Your task to perform on an android device: set an alarm Image 0: 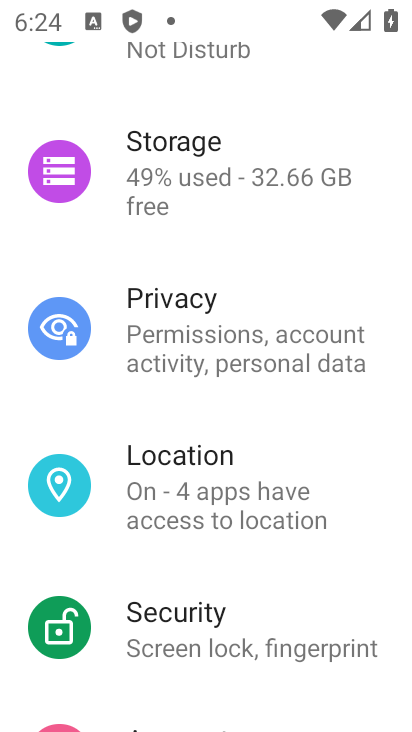
Step 0: press home button
Your task to perform on an android device: set an alarm Image 1: 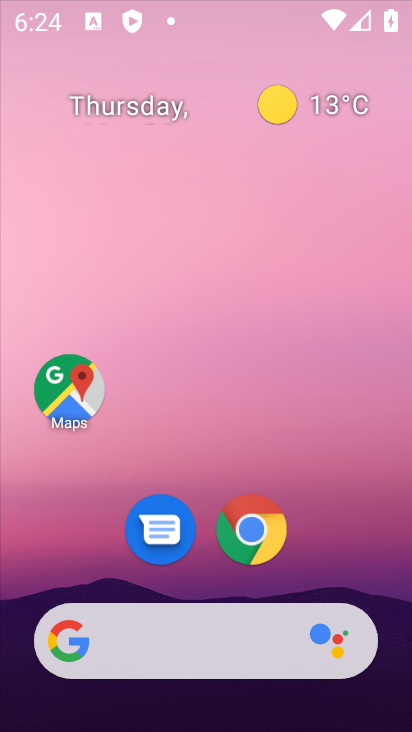
Step 1: drag from (307, 523) to (309, 14)
Your task to perform on an android device: set an alarm Image 2: 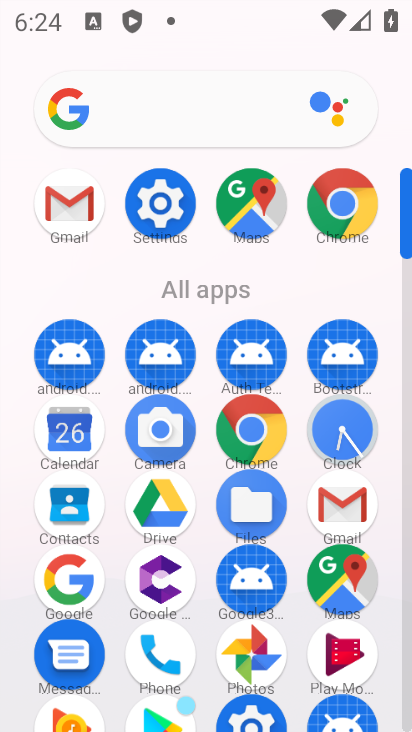
Step 2: click (337, 441)
Your task to perform on an android device: set an alarm Image 3: 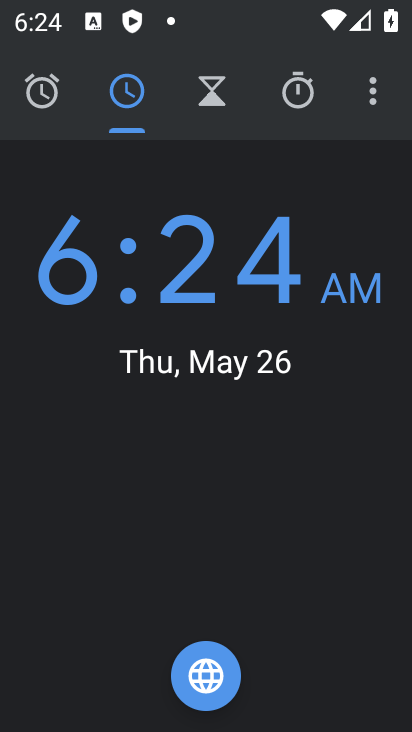
Step 3: click (52, 101)
Your task to perform on an android device: set an alarm Image 4: 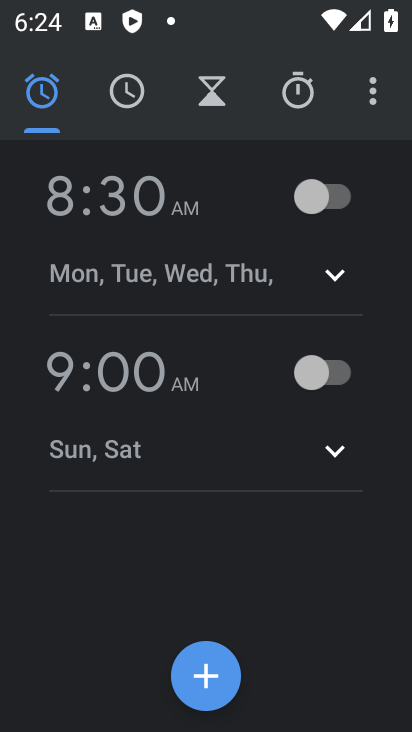
Step 4: click (343, 200)
Your task to perform on an android device: set an alarm Image 5: 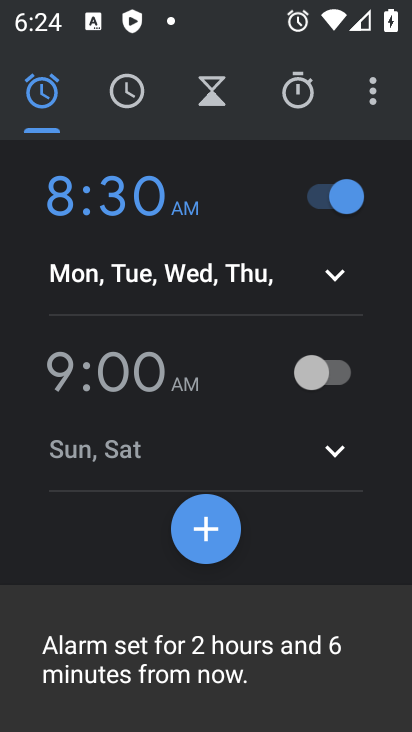
Step 5: task complete